Your task to perform on an android device: Go to location settings Image 0: 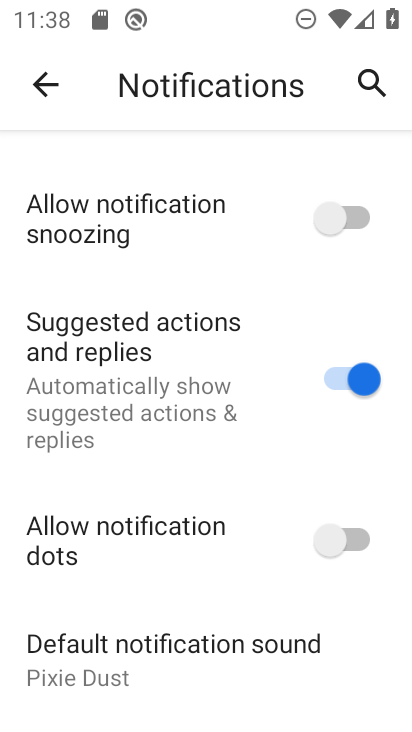
Step 0: press home button
Your task to perform on an android device: Go to location settings Image 1: 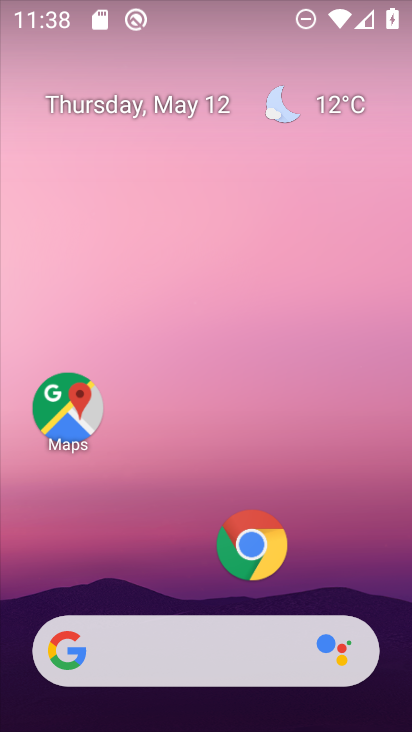
Step 1: drag from (199, 594) to (279, 86)
Your task to perform on an android device: Go to location settings Image 2: 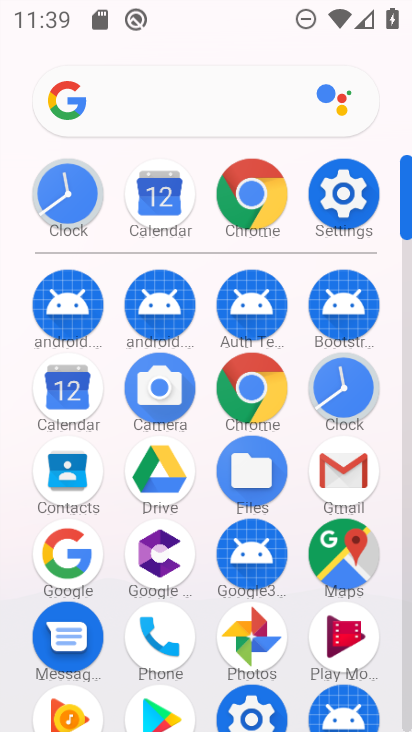
Step 2: click (341, 197)
Your task to perform on an android device: Go to location settings Image 3: 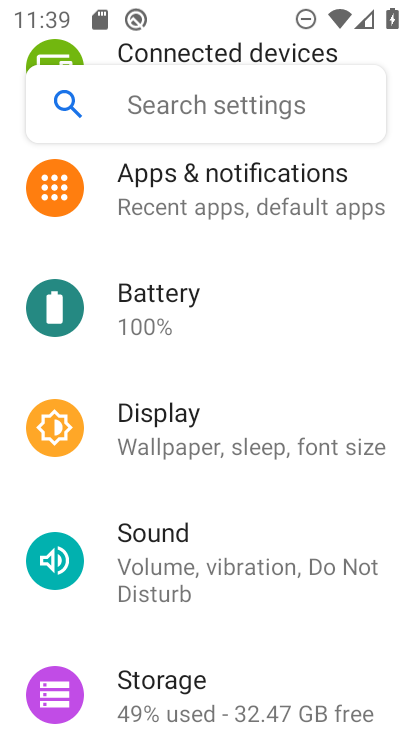
Step 3: drag from (218, 678) to (253, 286)
Your task to perform on an android device: Go to location settings Image 4: 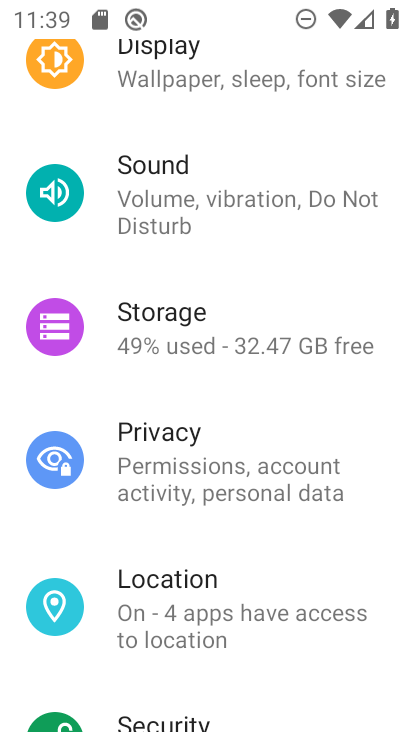
Step 4: click (184, 606)
Your task to perform on an android device: Go to location settings Image 5: 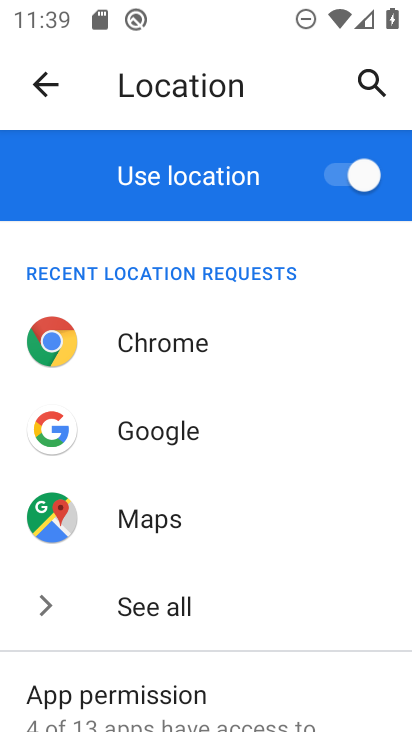
Step 5: drag from (195, 663) to (214, 254)
Your task to perform on an android device: Go to location settings Image 6: 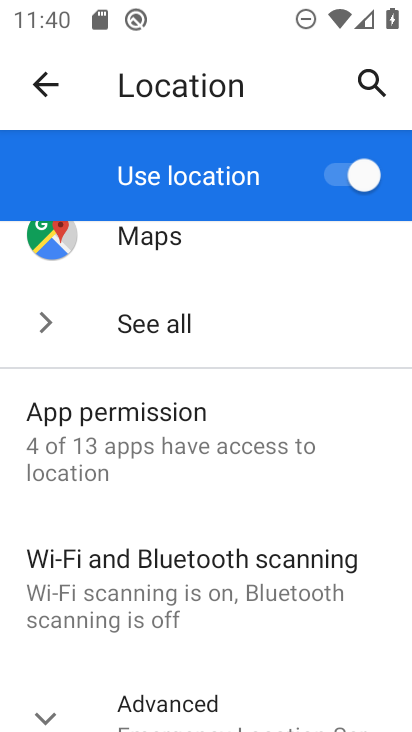
Step 6: drag from (164, 650) to (166, 593)
Your task to perform on an android device: Go to location settings Image 7: 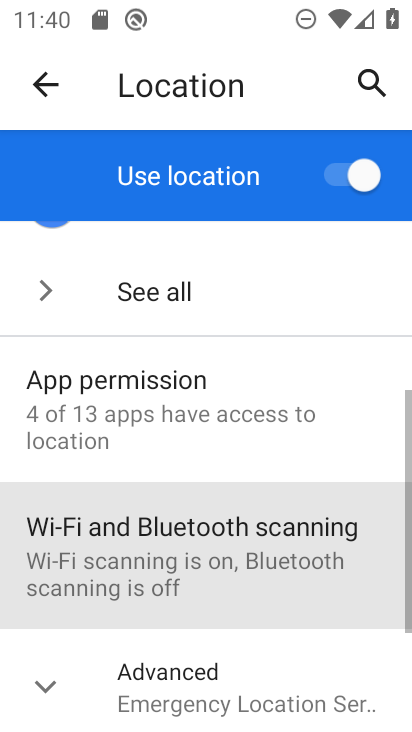
Step 7: drag from (175, 457) to (172, 376)
Your task to perform on an android device: Go to location settings Image 8: 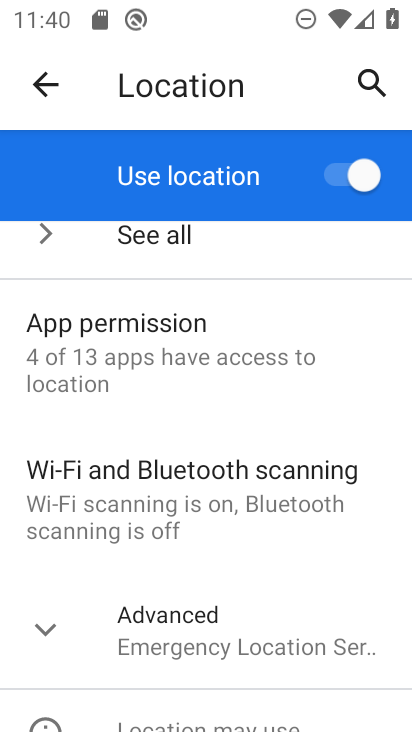
Step 8: click (43, 623)
Your task to perform on an android device: Go to location settings Image 9: 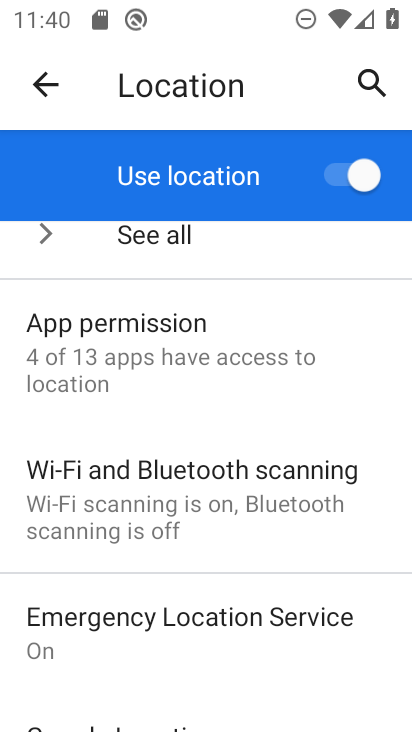
Step 9: task complete